Your task to perform on an android device: uninstall "Google Maps" Image 0: 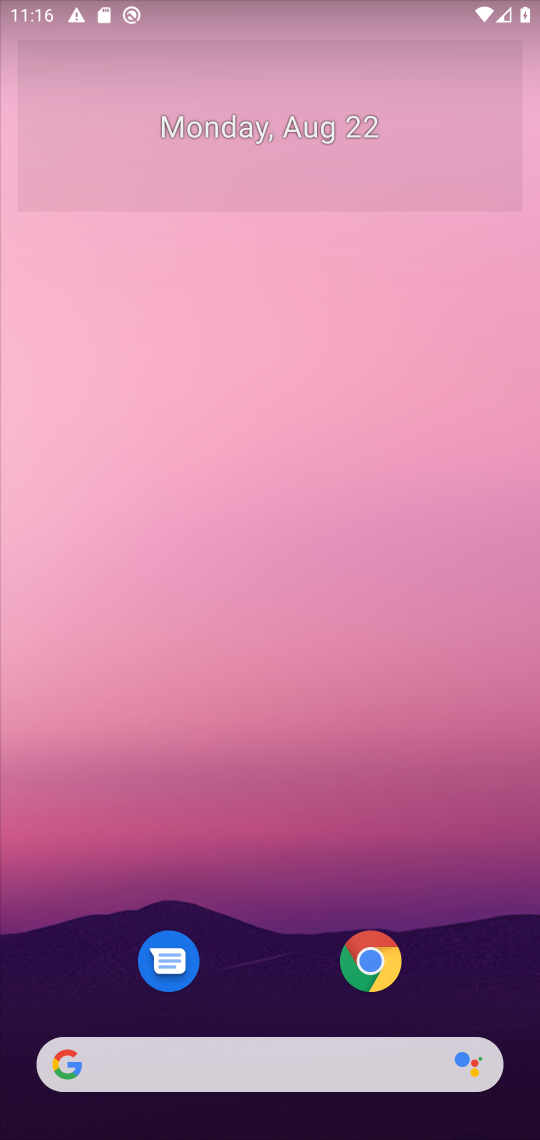
Step 0: drag from (272, 1025) to (434, 215)
Your task to perform on an android device: uninstall "Google Maps" Image 1: 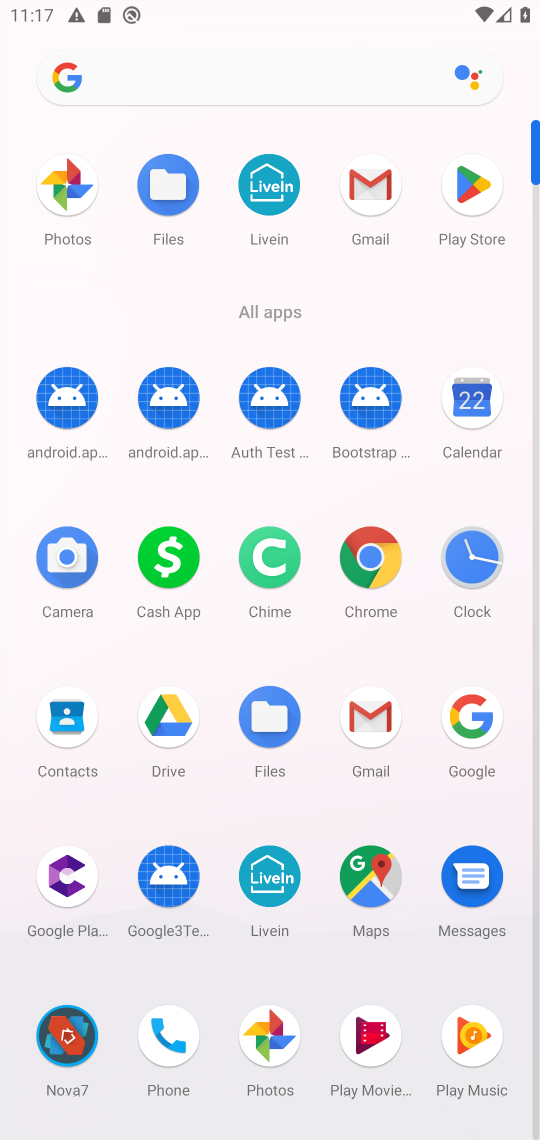
Step 1: task complete